Your task to perform on an android device: Open calendar and show me the fourth week of next month Image 0: 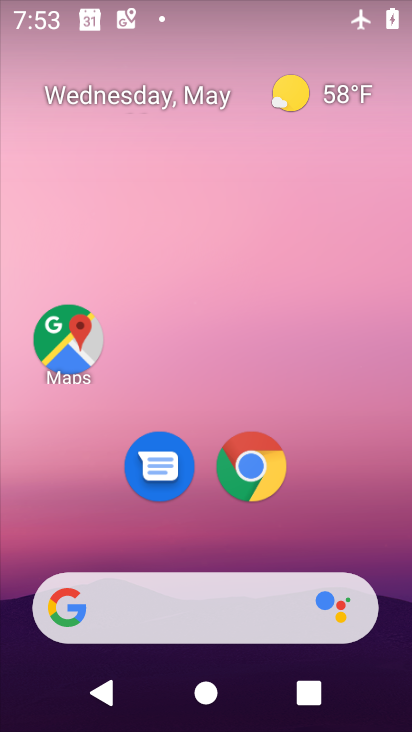
Step 0: drag from (198, 532) to (278, 31)
Your task to perform on an android device: Open calendar and show me the fourth week of next month Image 1: 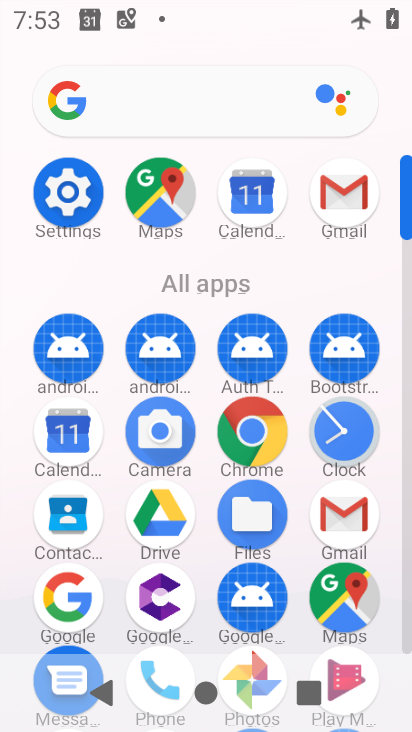
Step 1: click (64, 433)
Your task to perform on an android device: Open calendar and show me the fourth week of next month Image 2: 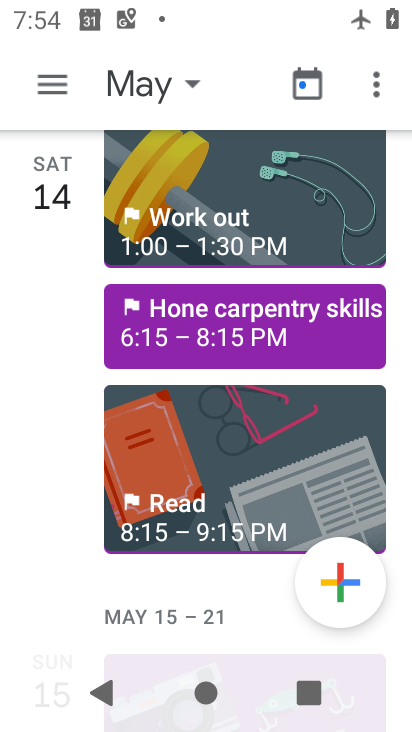
Step 2: click (58, 92)
Your task to perform on an android device: Open calendar and show me the fourth week of next month Image 3: 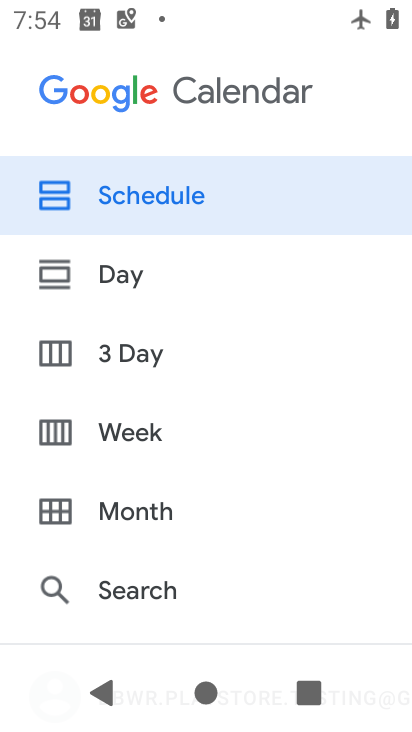
Step 3: click (89, 431)
Your task to perform on an android device: Open calendar and show me the fourth week of next month Image 4: 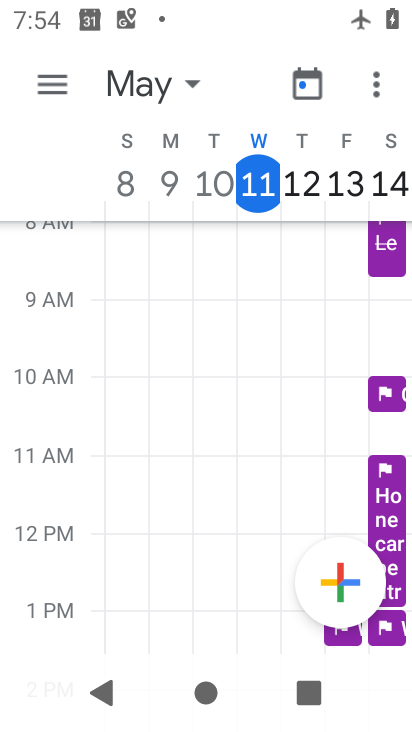
Step 4: drag from (388, 180) to (90, 179)
Your task to perform on an android device: Open calendar and show me the fourth week of next month Image 5: 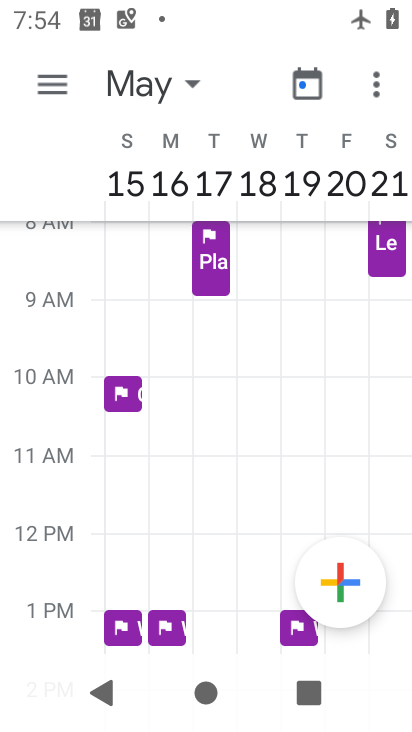
Step 5: drag from (388, 178) to (72, 173)
Your task to perform on an android device: Open calendar and show me the fourth week of next month Image 6: 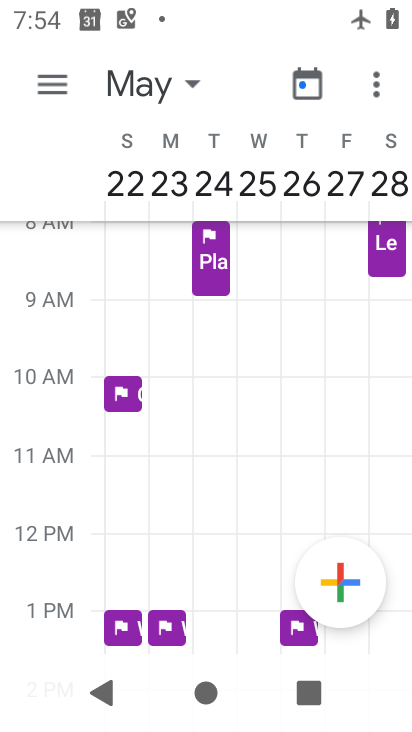
Step 6: drag from (369, 183) to (89, 175)
Your task to perform on an android device: Open calendar and show me the fourth week of next month Image 7: 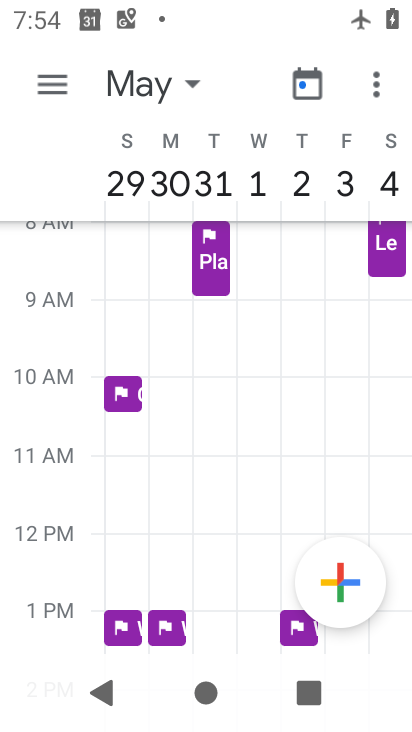
Step 7: drag from (380, 176) to (107, 170)
Your task to perform on an android device: Open calendar and show me the fourth week of next month Image 8: 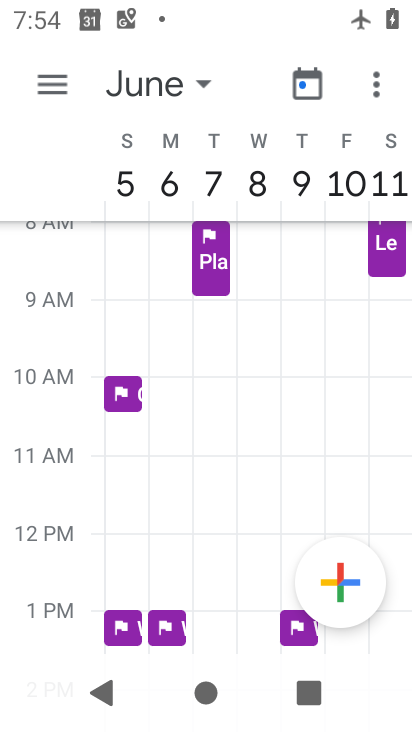
Step 8: drag from (381, 176) to (6, 176)
Your task to perform on an android device: Open calendar and show me the fourth week of next month Image 9: 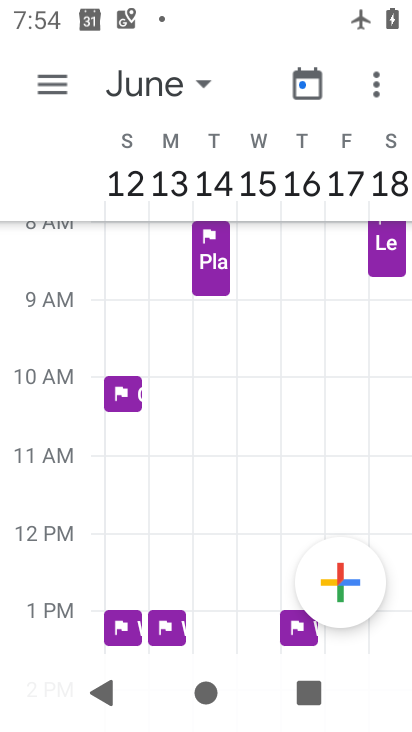
Step 9: drag from (320, 175) to (25, 166)
Your task to perform on an android device: Open calendar and show me the fourth week of next month Image 10: 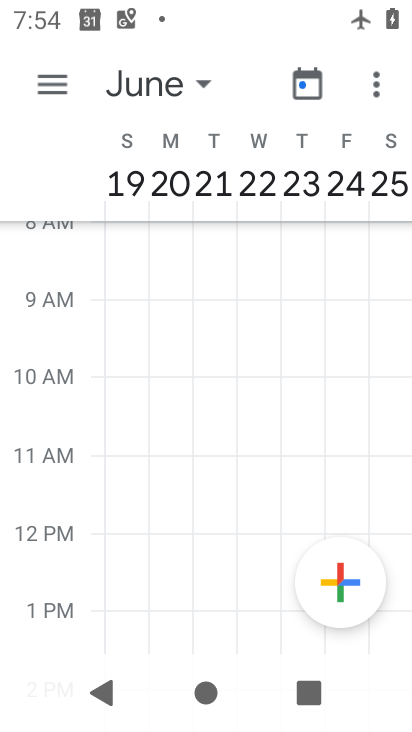
Step 10: click (126, 180)
Your task to perform on an android device: Open calendar and show me the fourth week of next month Image 11: 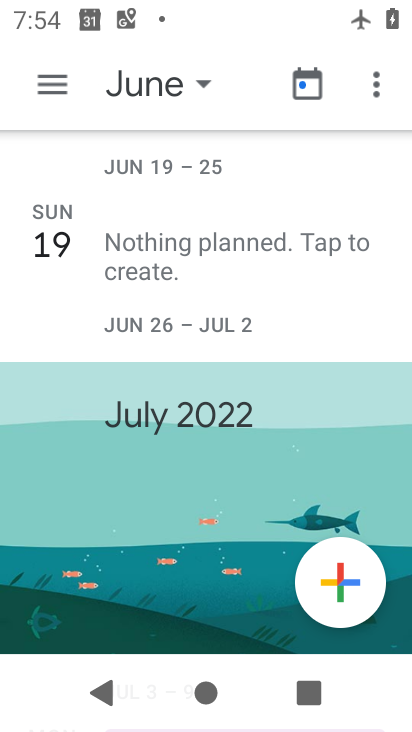
Step 11: task complete